Your task to perform on an android device: What's the weather today? Image 0: 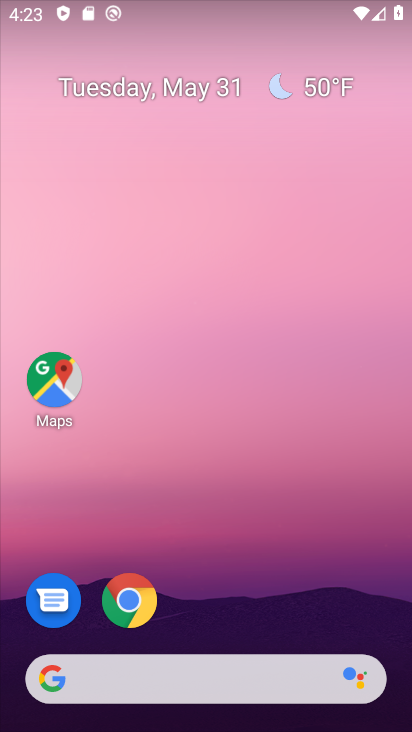
Step 0: drag from (247, 601) to (231, 230)
Your task to perform on an android device: What's the weather today? Image 1: 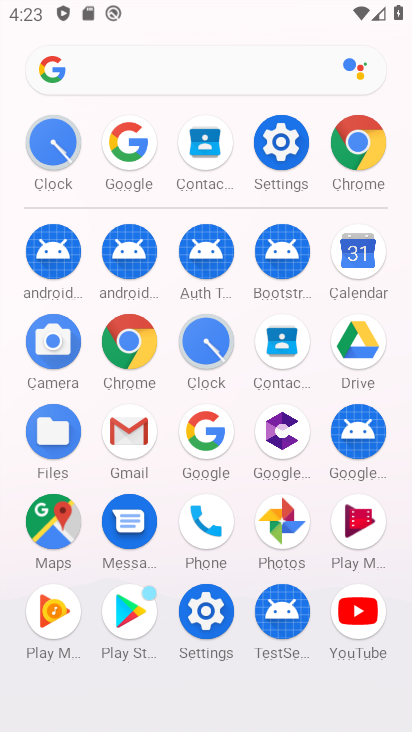
Step 1: click (126, 141)
Your task to perform on an android device: What's the weather today? Image 2: 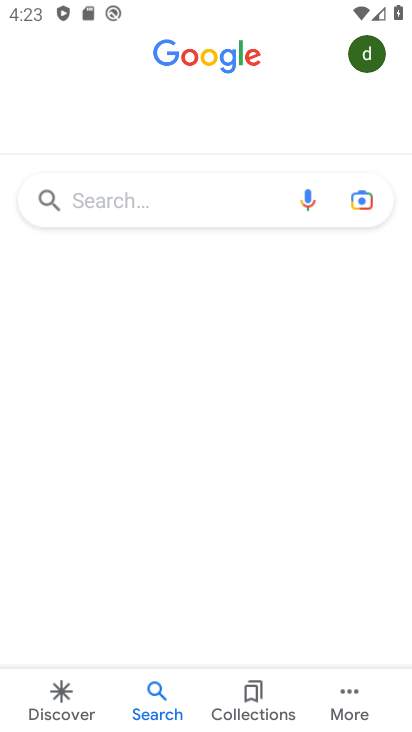
Step 2: click (147, 193)
Your task to perform on an android device: What's the weather today? Image 3: 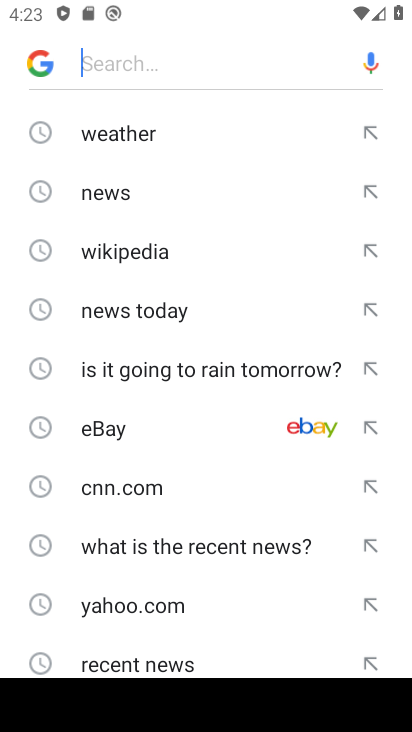
Step 3: click (142, 143)
Your task to perform on an android device: What's the weather today? Image 4: 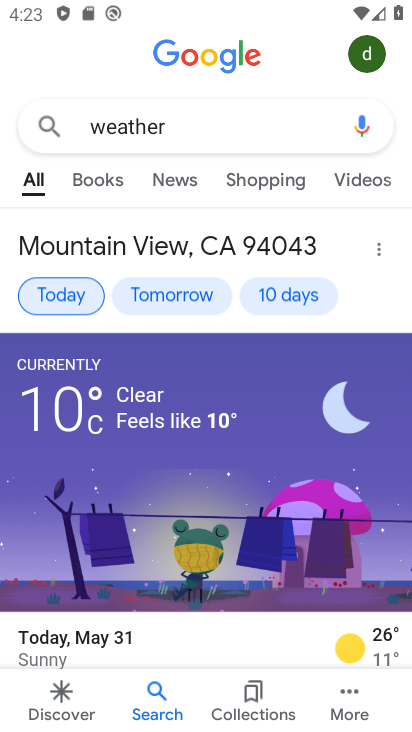
Step 4: task complete